Your task to perform on an android device: Show me recent news Image 0: 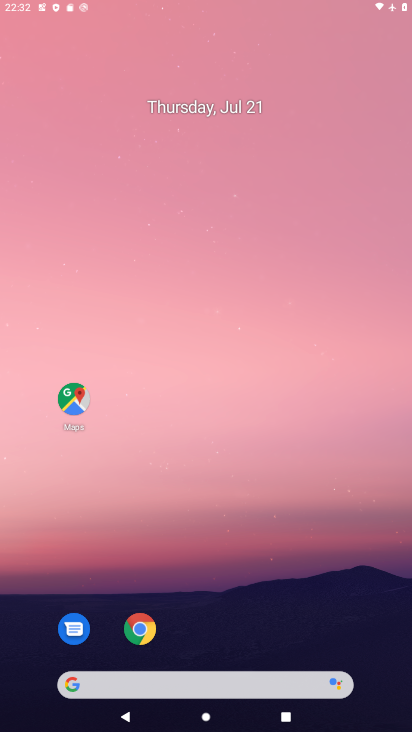
Step 0: press home button
Your task to perform on an android device: Show me recent news Image 1: 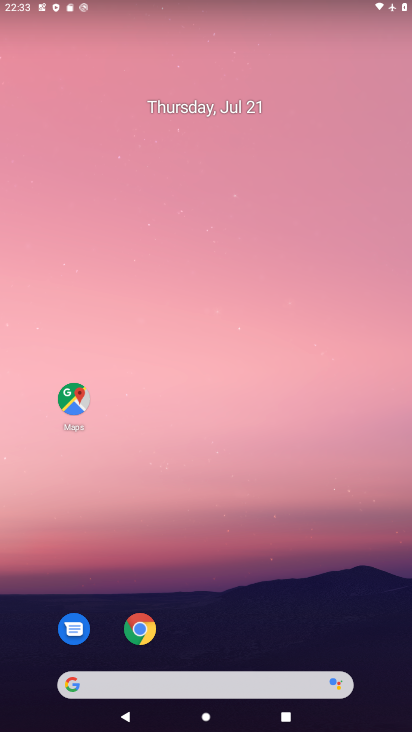
Step 1: click (72, 685)
Your task to perform on an android device: Show me recent news Image 2: 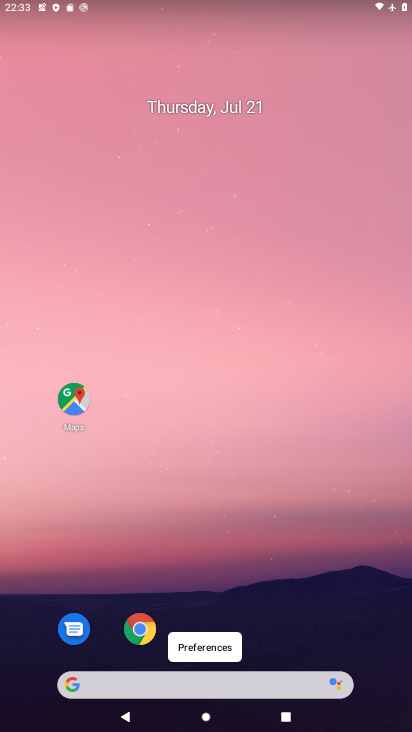
Step 2: click (69, 689)
Your task to perform on an android device: Show me recent news Image 3: 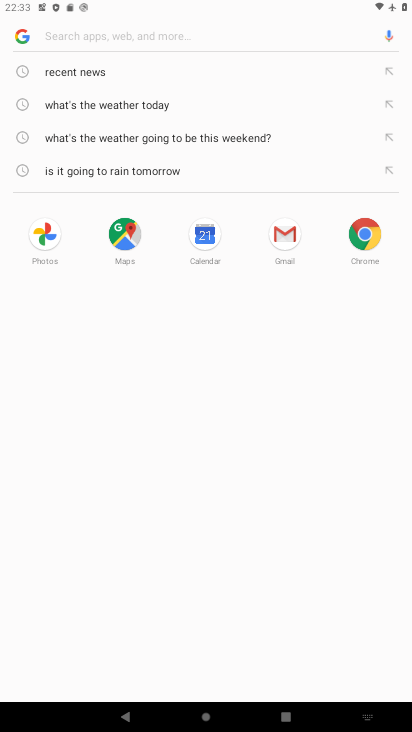
Step 3: click (81, 73)
Your task to perform on an android device: Show me recent news Image 4: 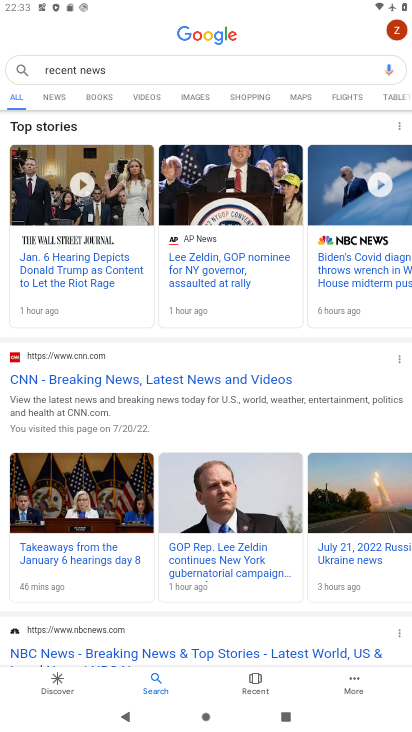
Step 4: task complete